Your task to perform on an android device: visit the assistant section in the google photos Image 0: 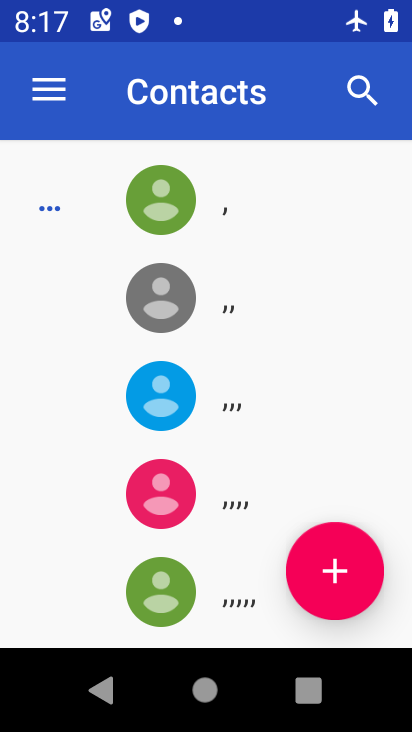
Step 0: press home button
Your task to perform on an android device: visit the assistant section in the google photos Image 1: 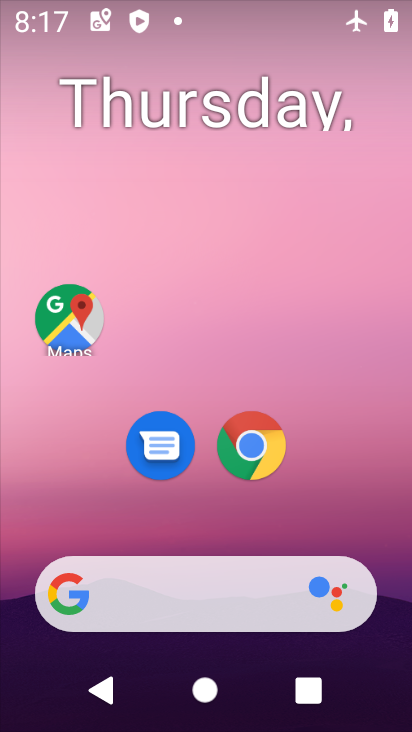
Step 1: drag from (390, 614) to (304, 28)
Your task to perform on an android device: visit the assistant section in the google photos Image 2: 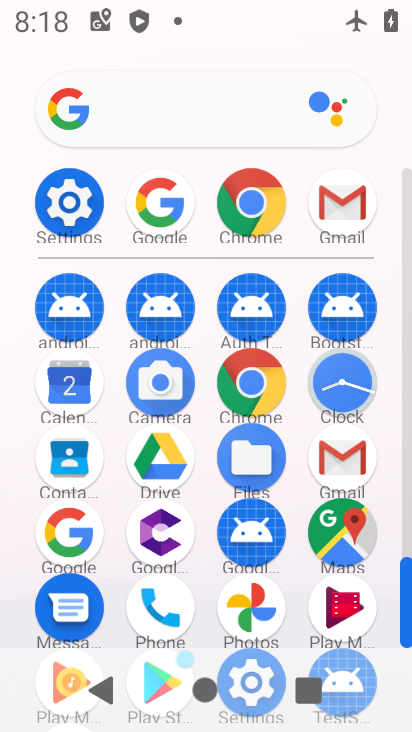
Step 2: click (259, 594)
Your task to perform on an android device: visit the assistant section in the google photos Image 3: 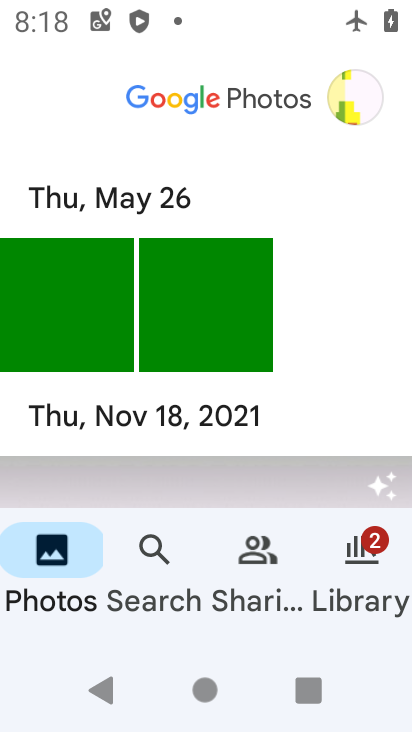
Step 3: task complete